Your task to perform on an android device: delete location history Image 0: 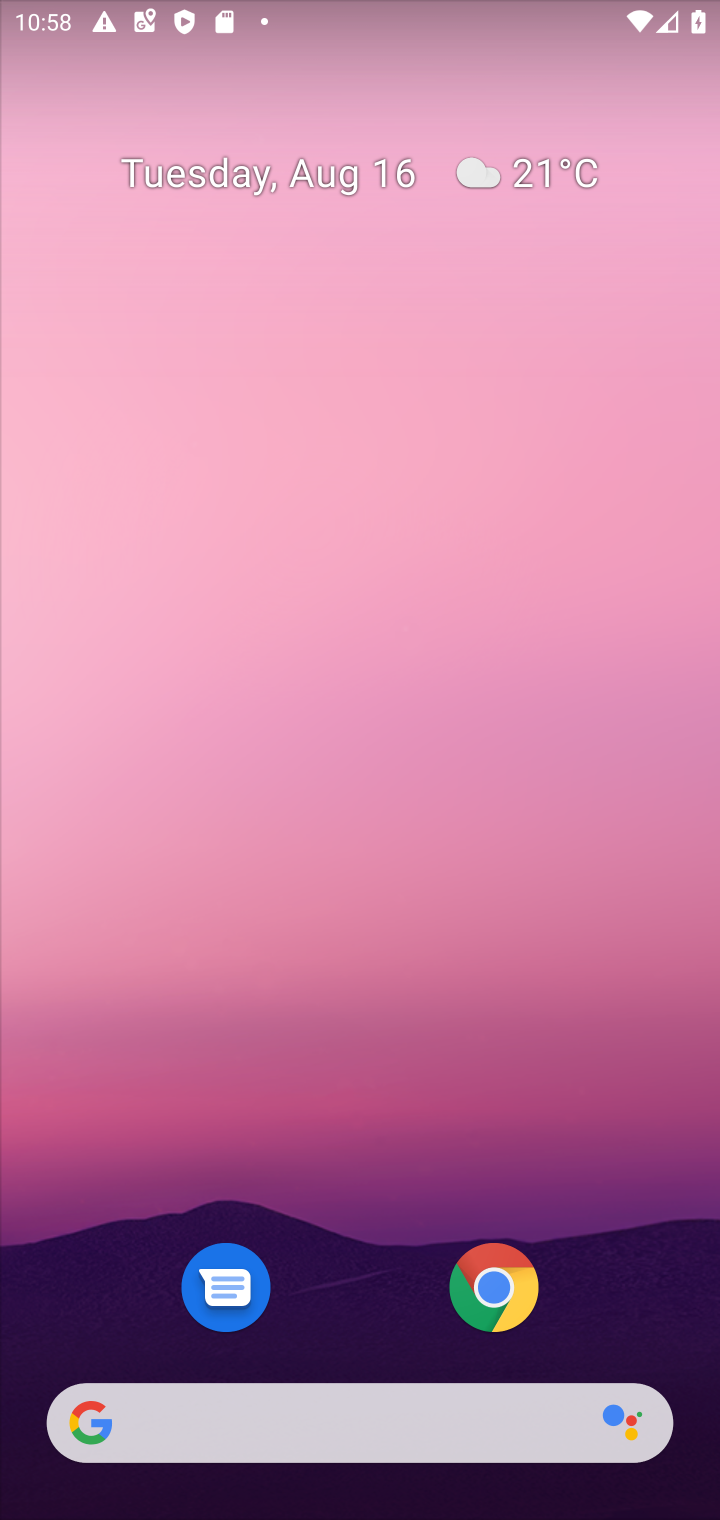
Step 0: drag from (632, 1048) to (623, 185)
Your task to perform on an android device: delete location history Image 1: 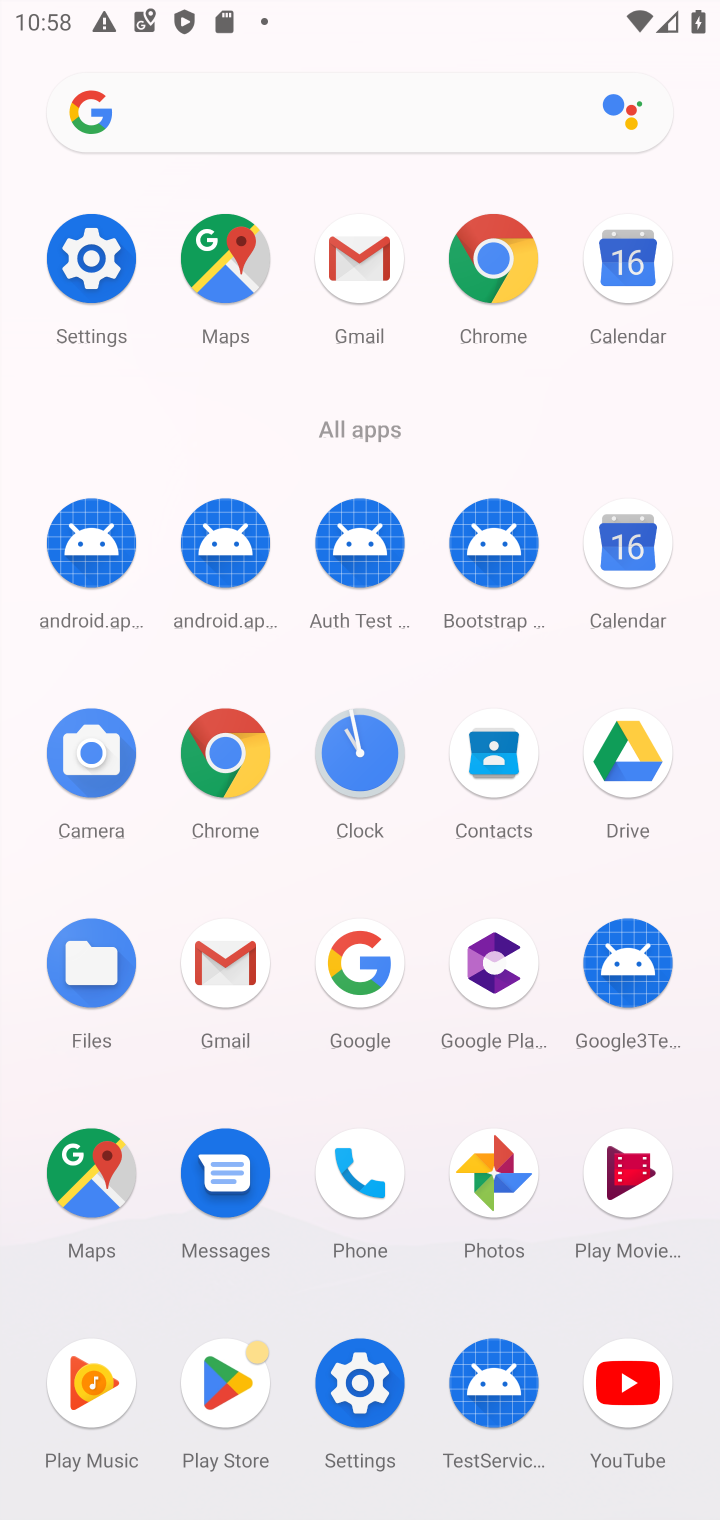
Step 1: click (94, 1176)
Your task to perform on an android device: delete location history Image 2: 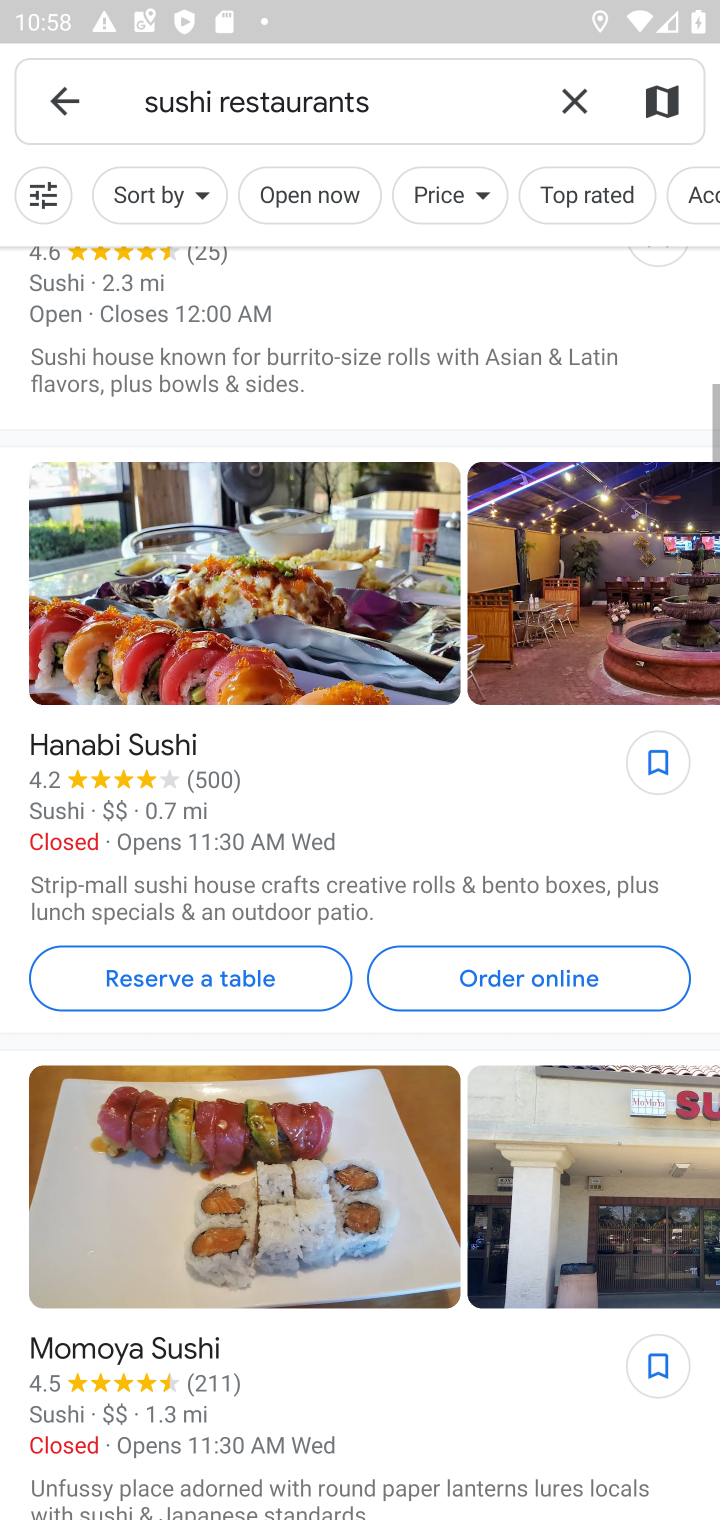
Step 2: click (569, 98)
Your task to perform on an android device: delete location history Image 3: 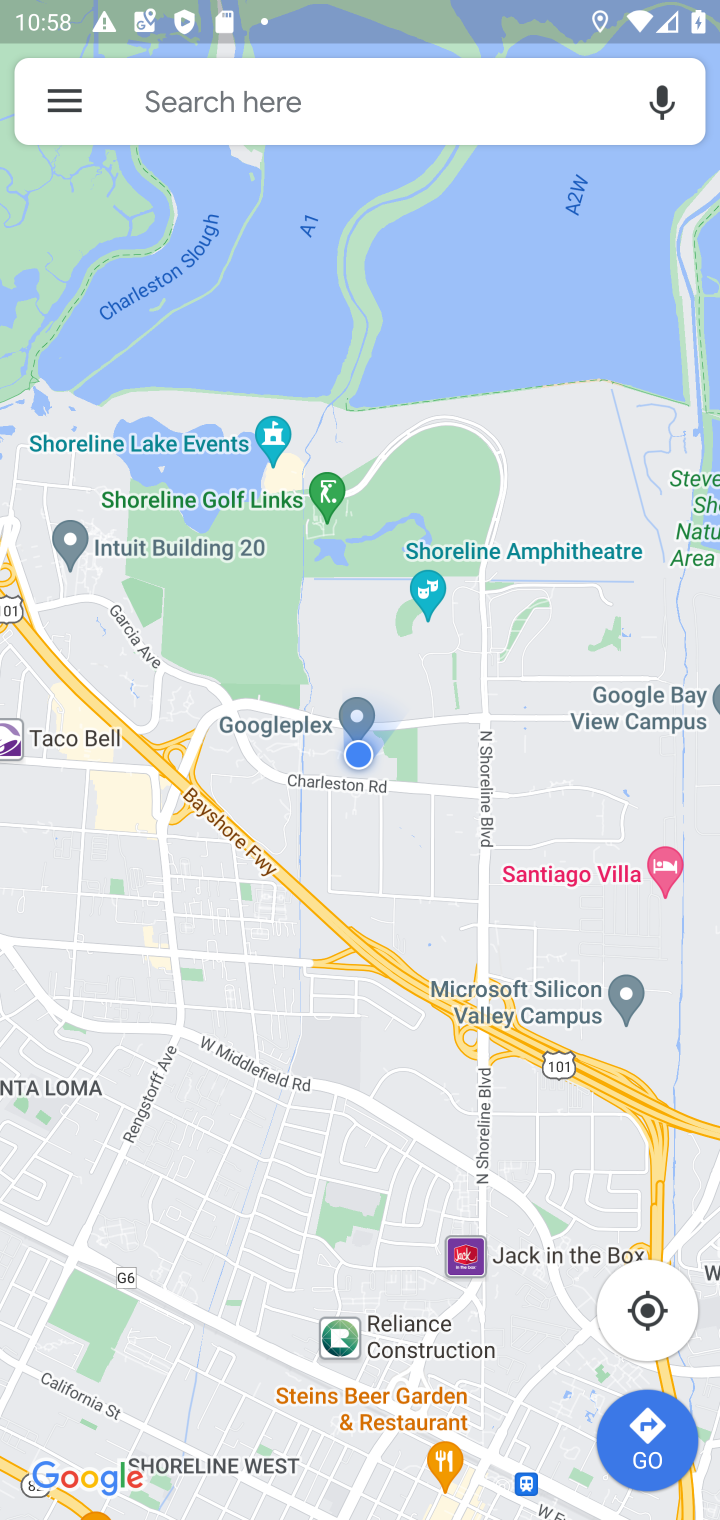
Step 3: click (64, 105)
Your task to perform on an android device: delete location history Image 4: 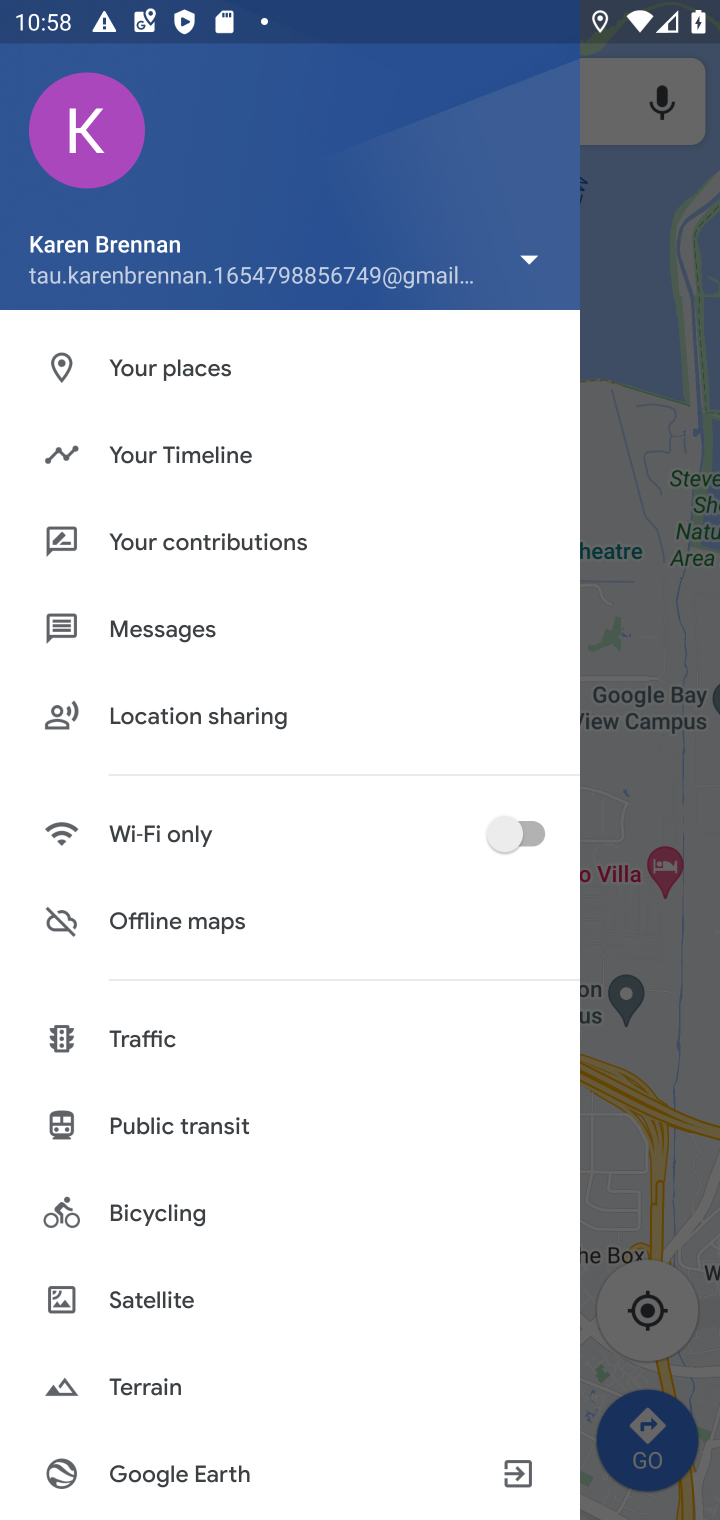
Step 4: drag from (325, 1449) to (349, 617)
Your task to perform on an android device: delete location history Image 5: 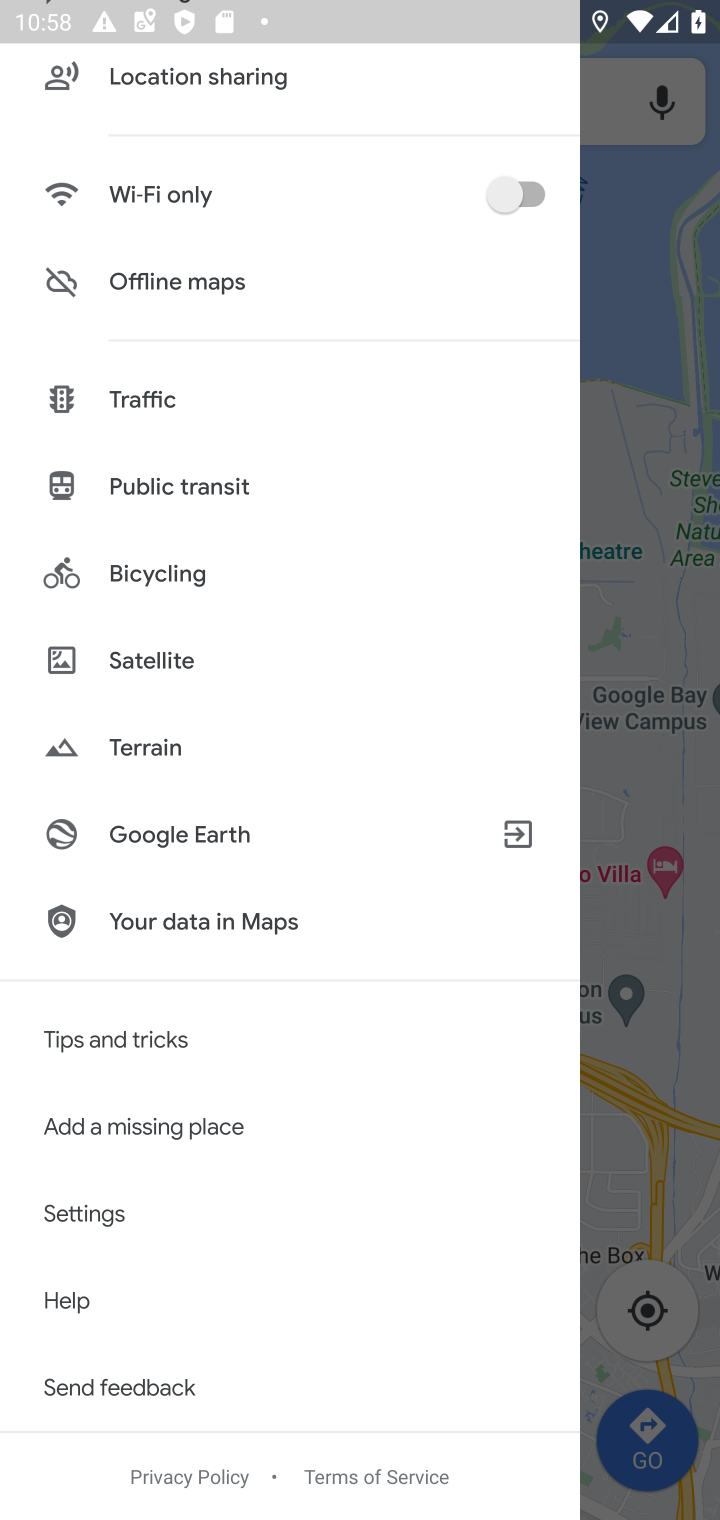
Step 5: click (74, 1209)
Your task to perform on an android device: delete location history Image 6: 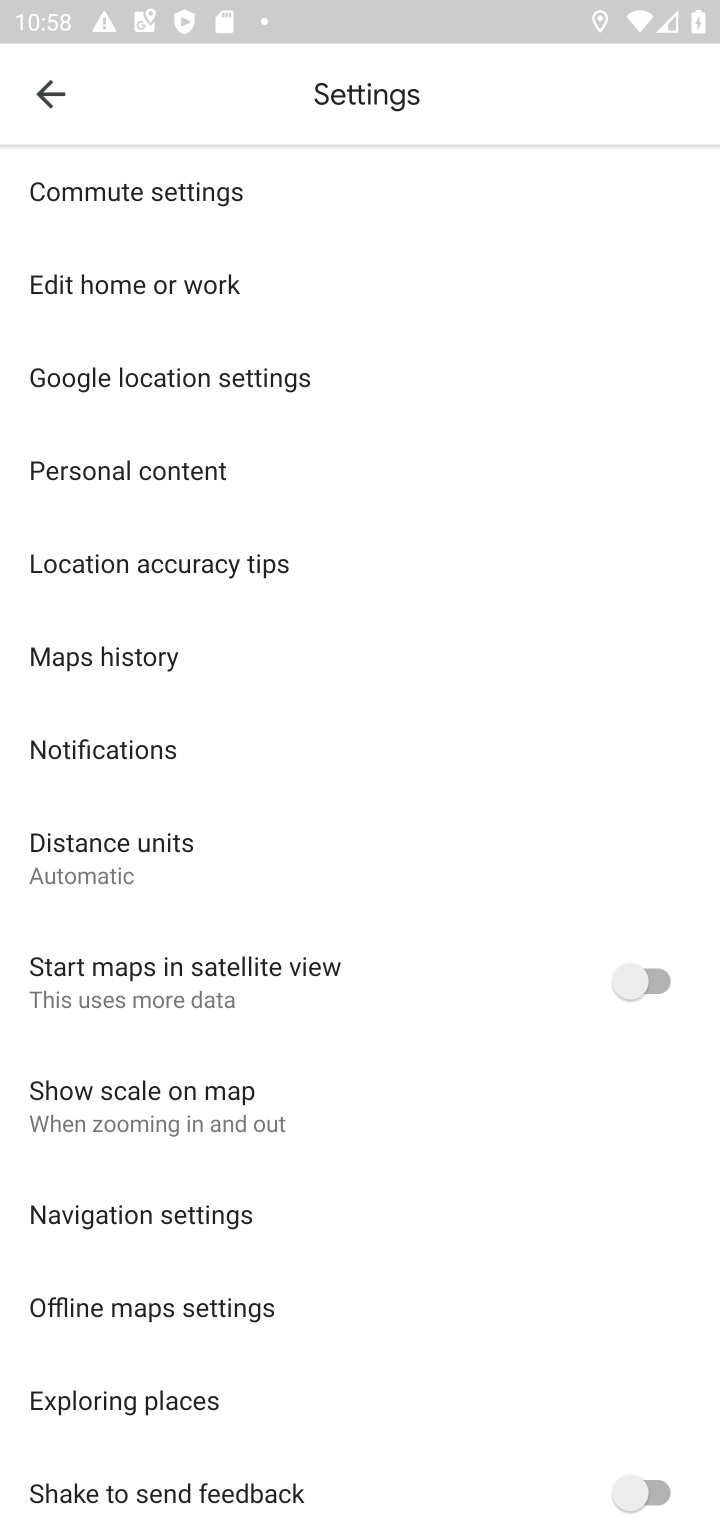
Step 6: click (98, 464)
Your task to perform on an android device: delete location history Image 7: 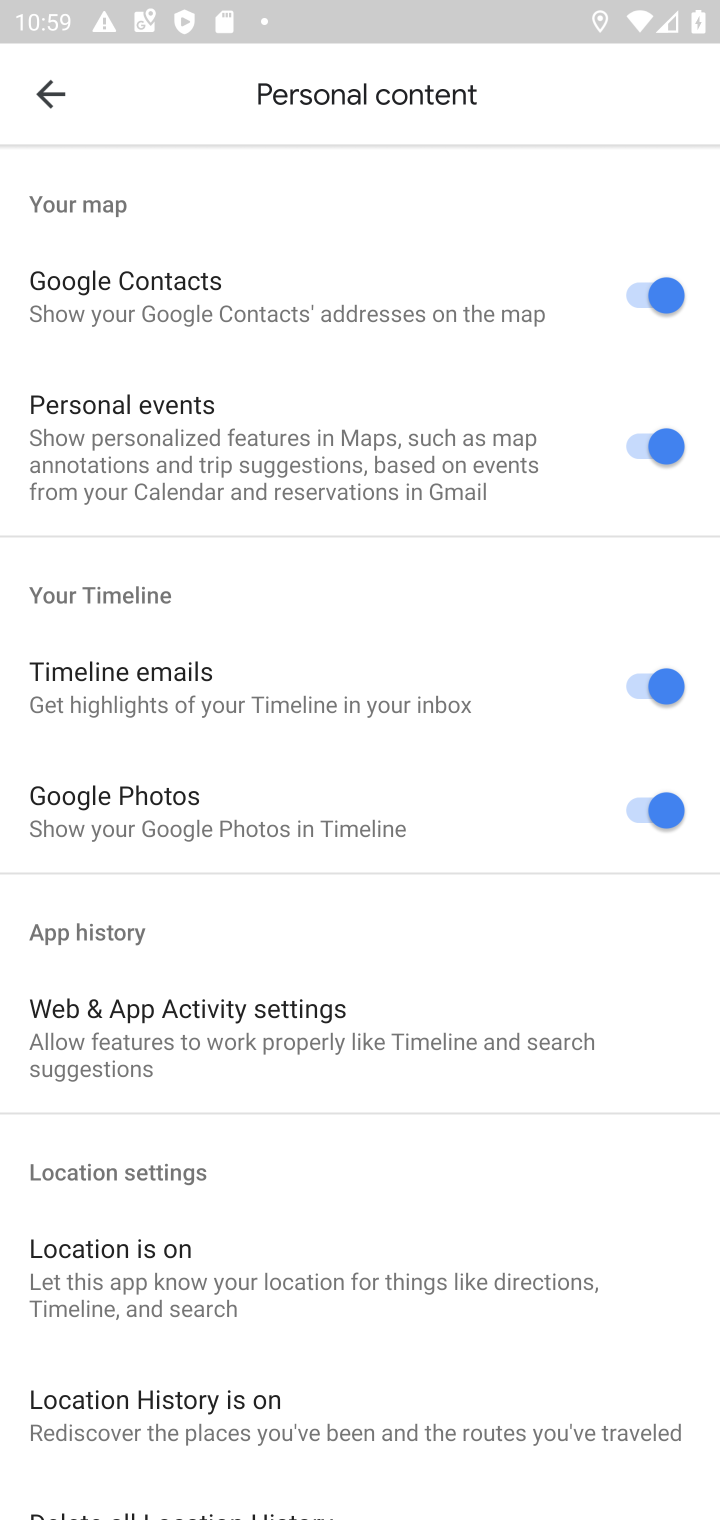
Step 7: drag from (455, 1134) to (445, 376)
Your task to perform on an android device: delete location history Image 8: 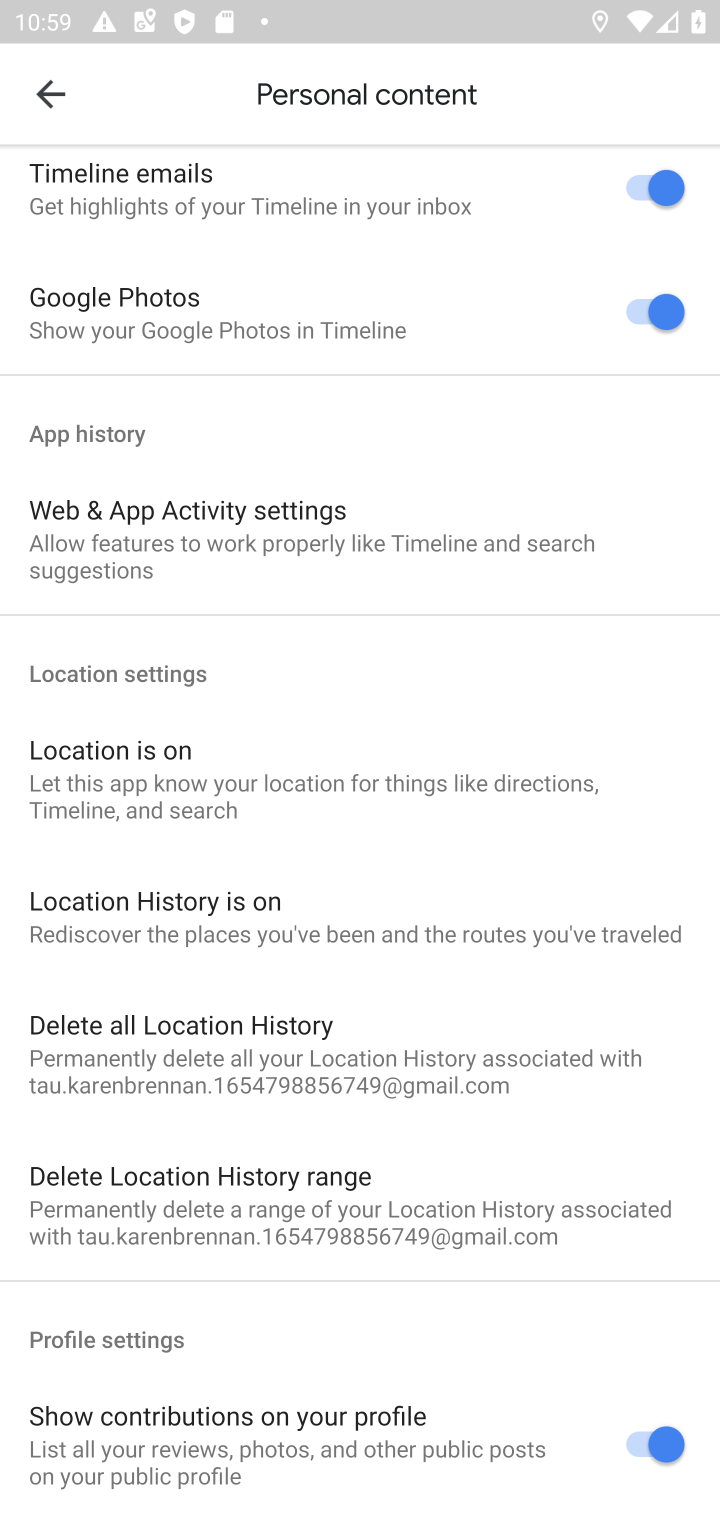
Step 8: click (118, 1033)
Your task to perform on an android device: delete location history Image 9: 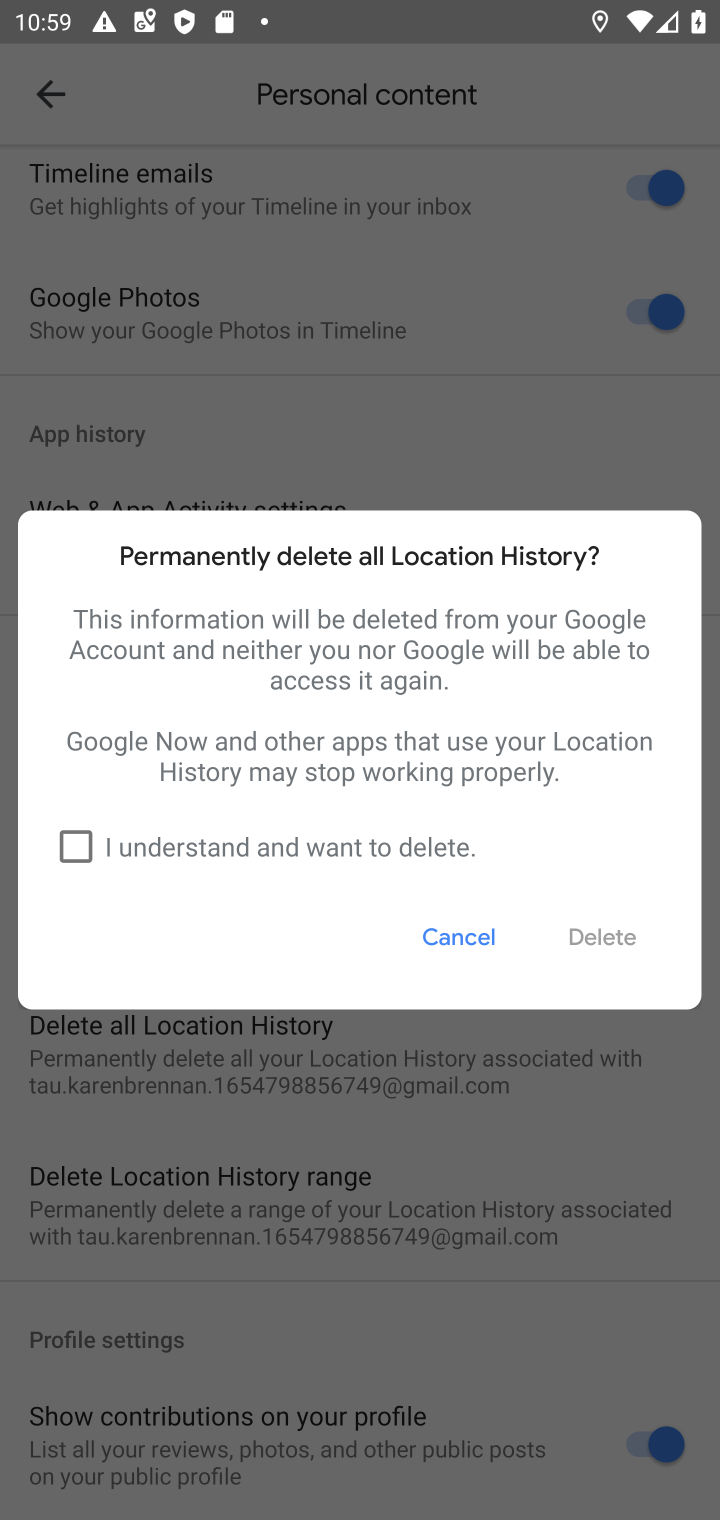
Step 9: click (72, 844)
Your task to perform on an android device: delete location history Image 10: 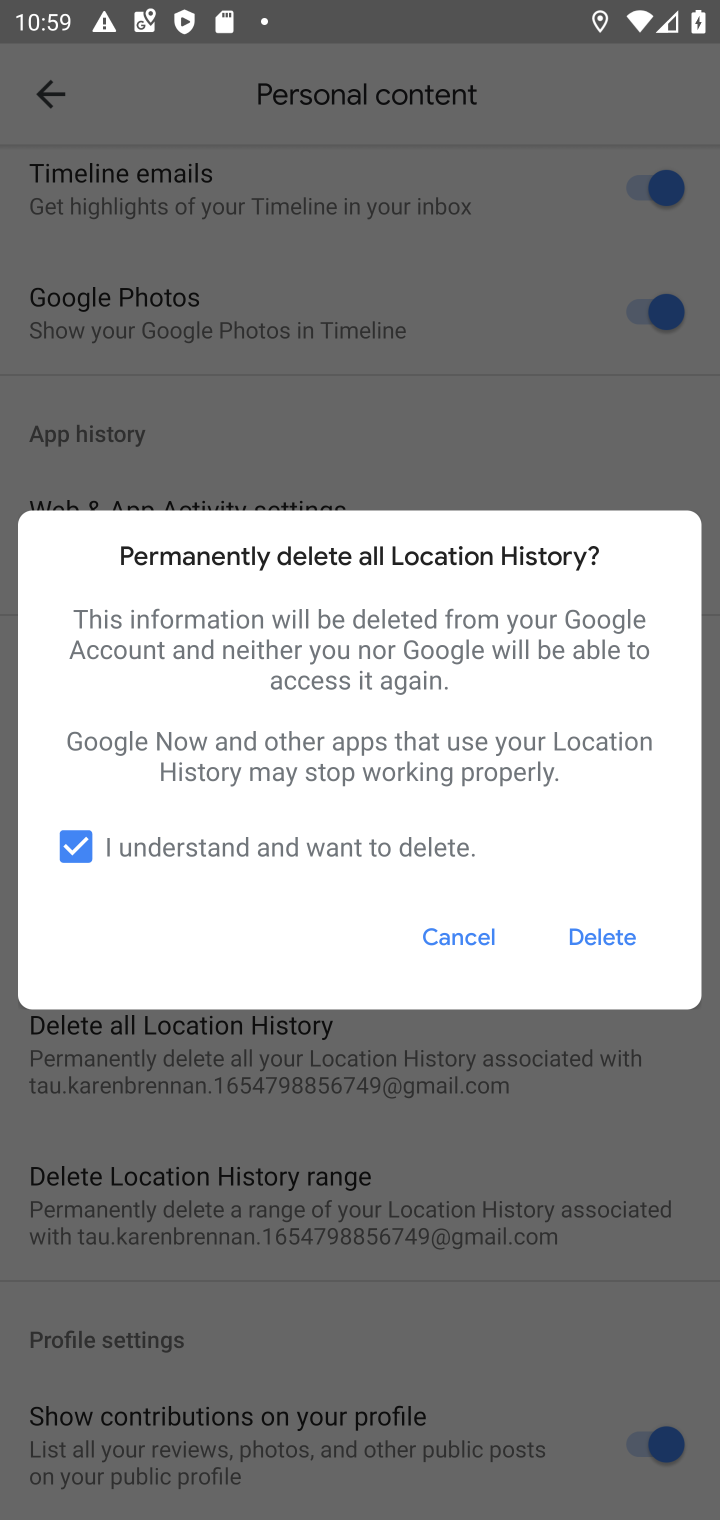
Step 10: click (610, 934)
Your task to perform on an android device: delete location history Image 11: 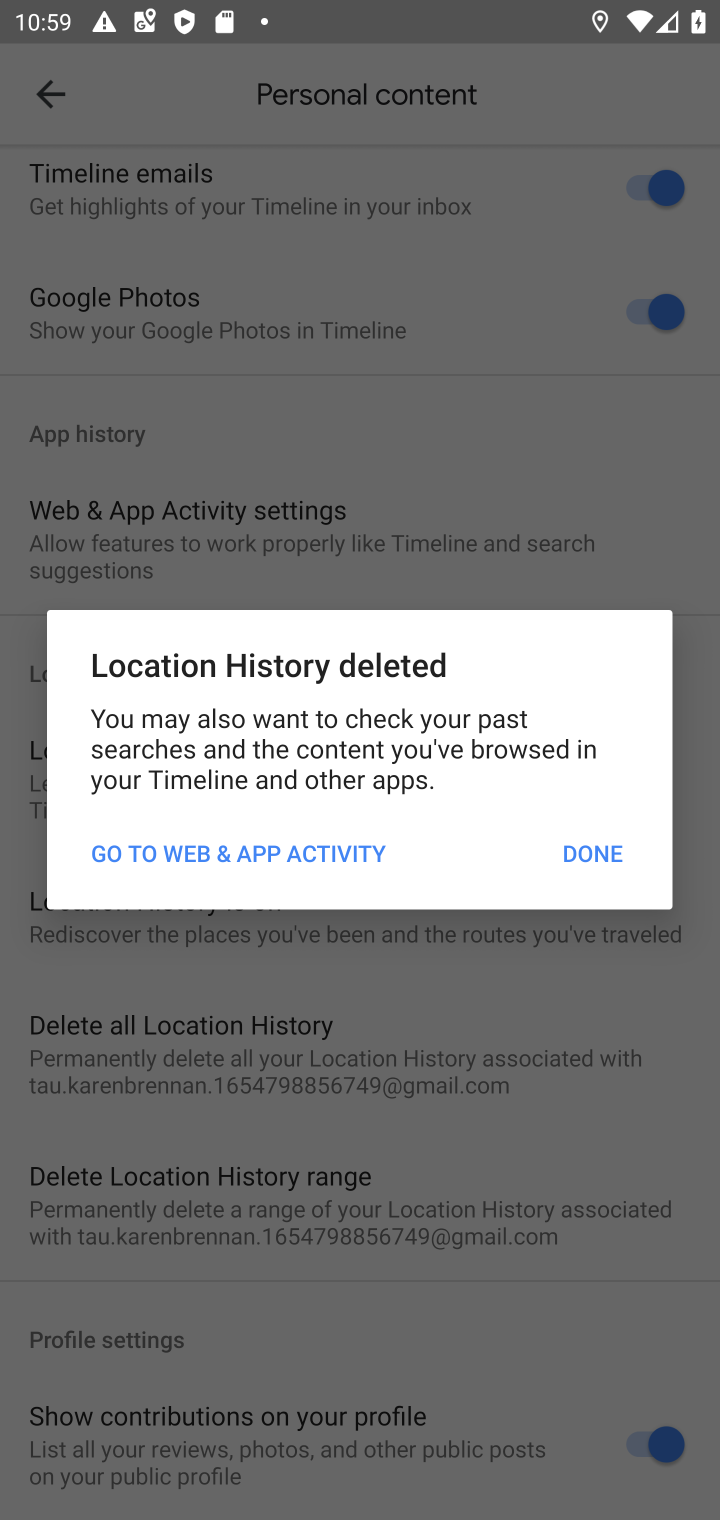
Step 11: click (578, 839)
Your task to perform on an android device: delete location history Image 12: 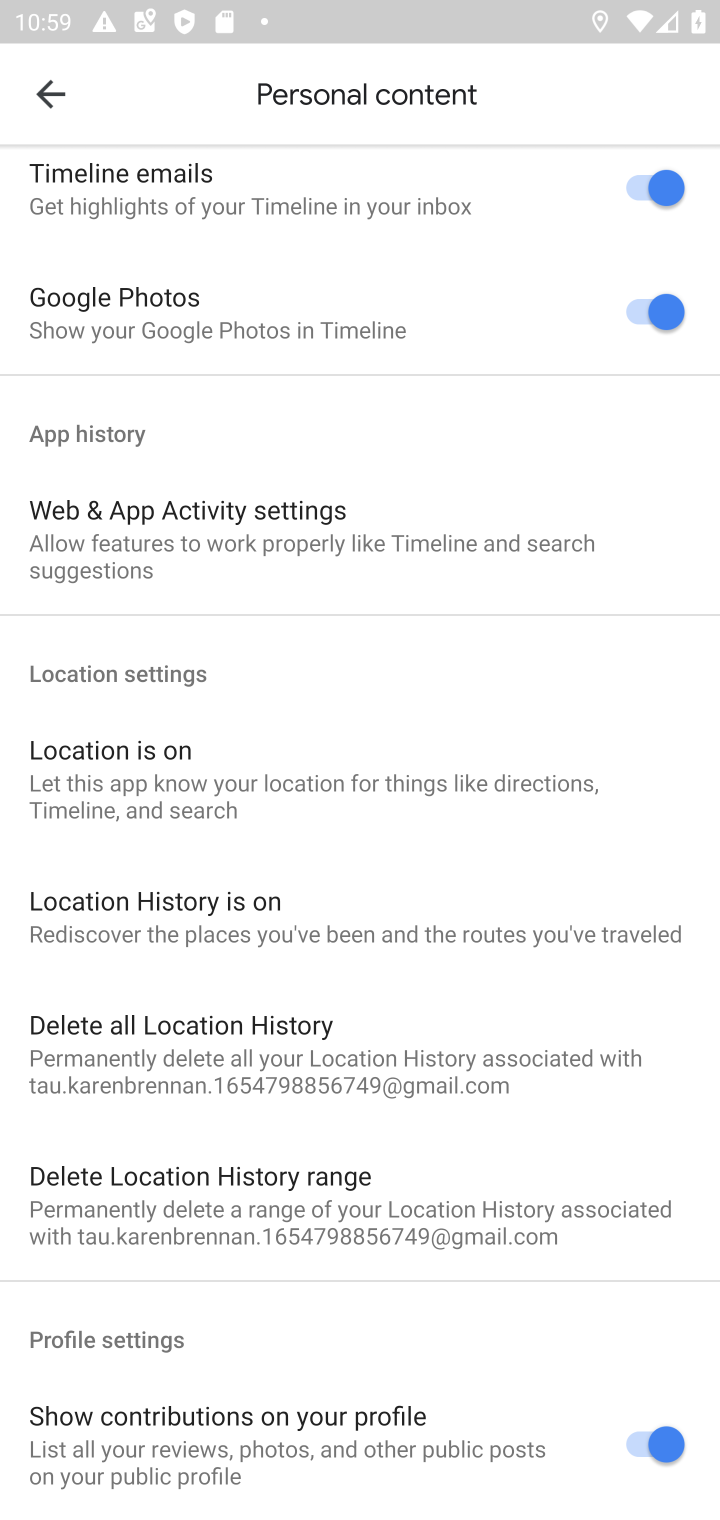
Step 12: task complete